Your task to perform on an android device: turn off location history Image 0: 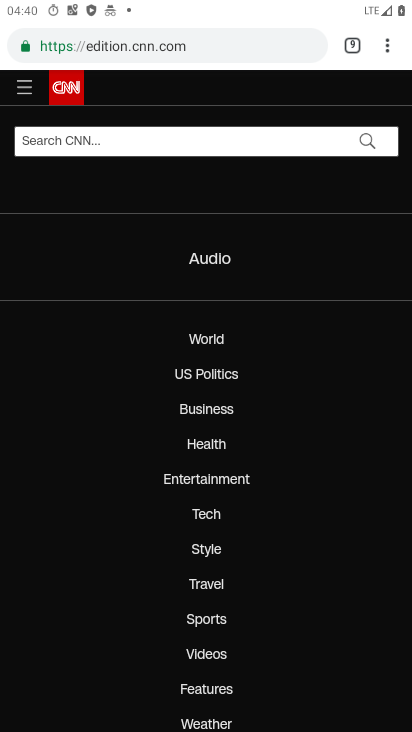
Step 0: press home button
Your task to perform on an android device: turn off location history Image 1: 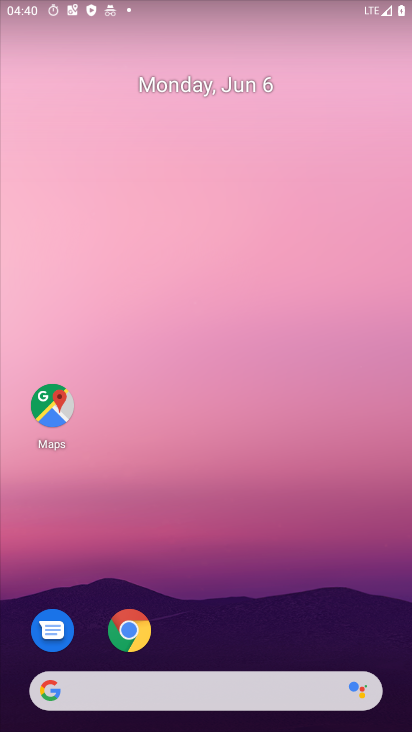
Step 1: drag from (259, 637) to (228, 48)
Your task to perform on an android device: turn off location history Image 2: 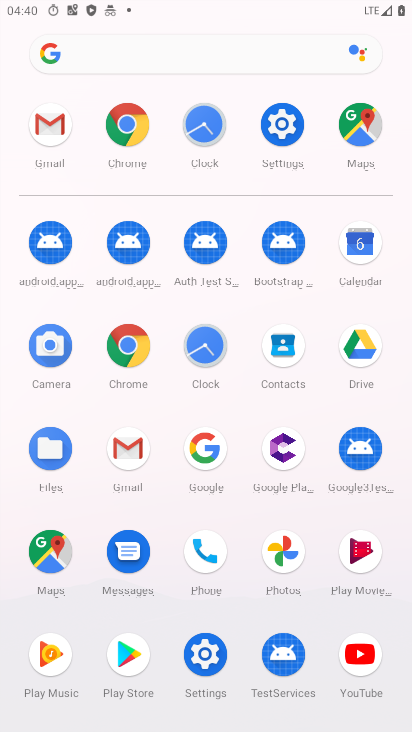
Step 2: click (54, 544)
Your task to perform on an android device: turn off location history Image 3: 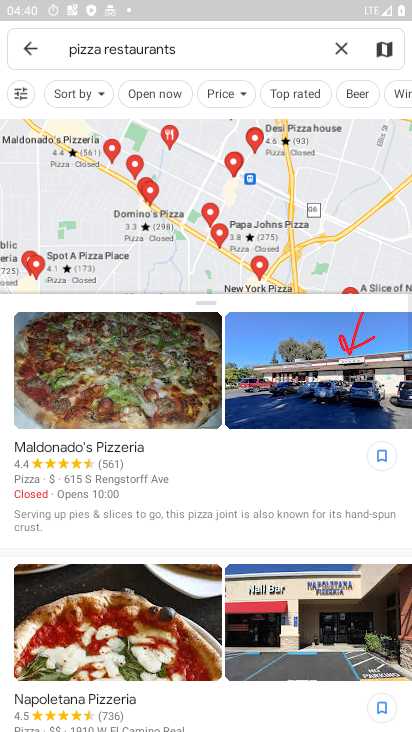
Step 3: click (24, 48)
Your task to perform on an android device: turn off location history Image 4: 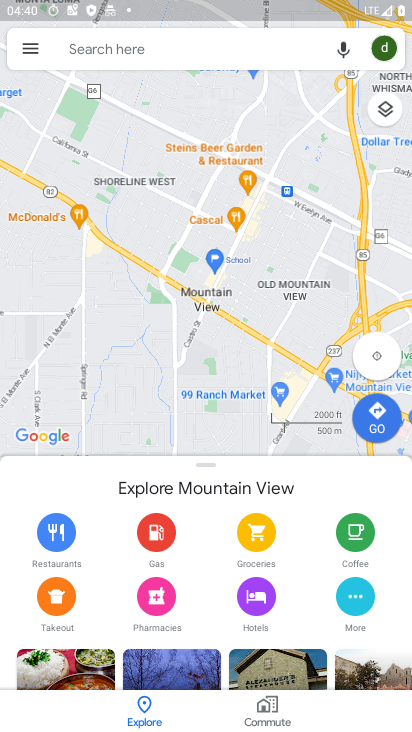
Step 4: click (24, 48)
Your task to perform on an android device: turn off location history Image 5: 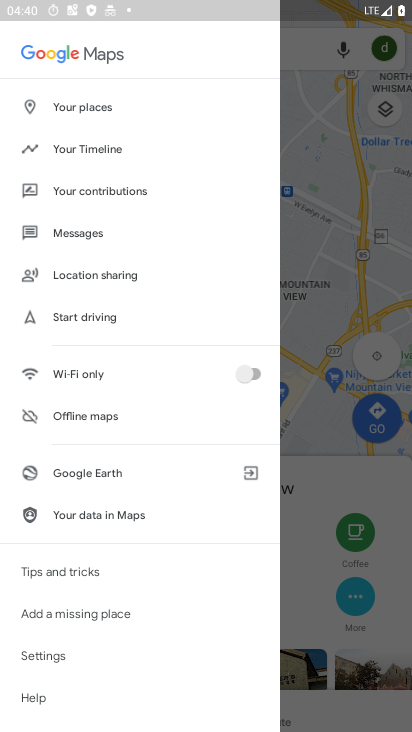
Step 5: click (92, 155)
Your task to perform on an android device: turn off location history Image 6: 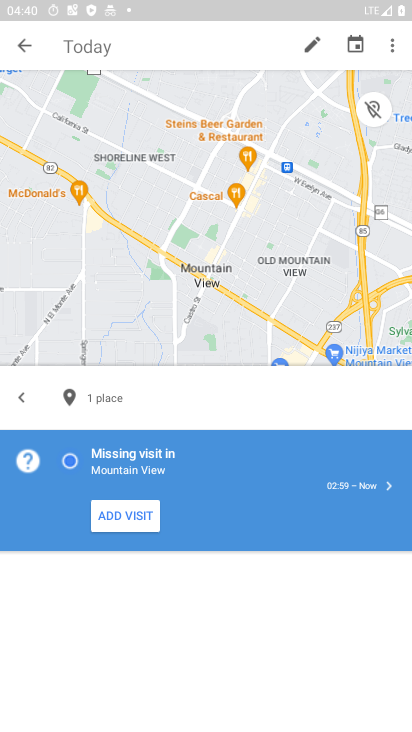
Step 6: click (388, 43)
Your task to perform on an android device: turn off location history Image 7: 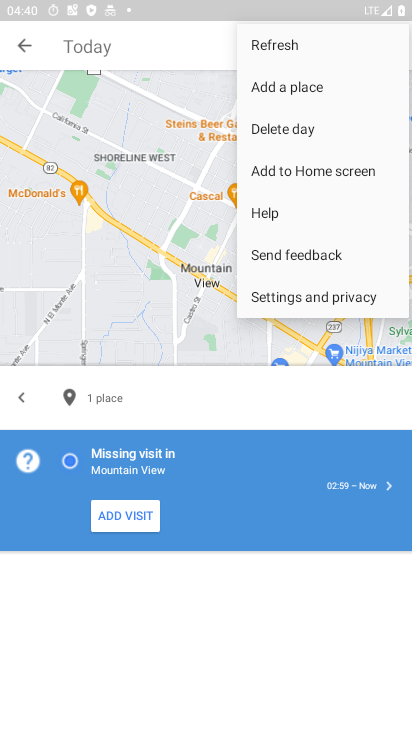
Step 7: click (320, 295)
Your task to perform on an android device: turn off location history Image 8: 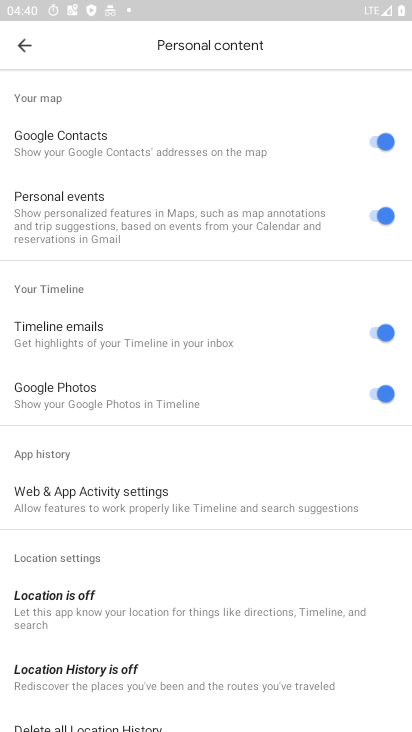
Step 8: click (98, 673)
Your task to perform on an android device: turn off location history Image 9: 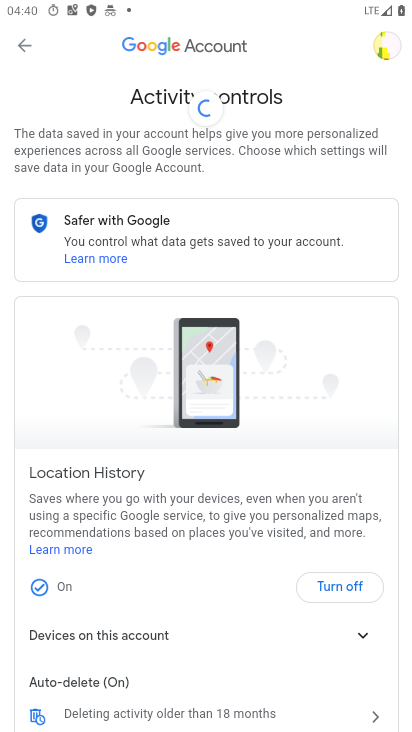
Step 9: drag from (196, 588) to (204, 287)
Your task to perform on an android device: turn off location history Image 10: 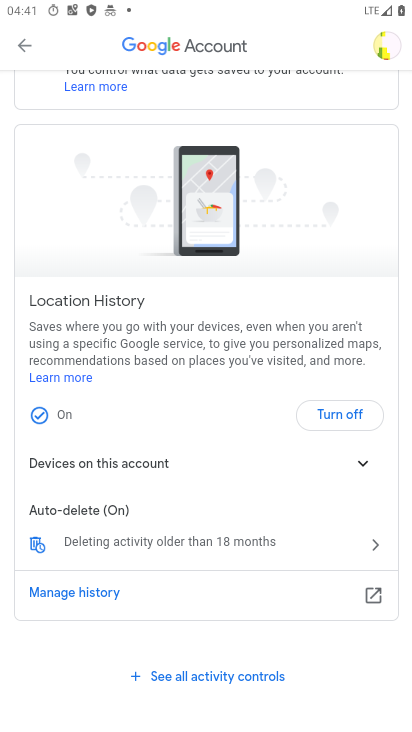
Step 10: click (334, 413)
Your task to perform on an android device: turn off location history Image 11: 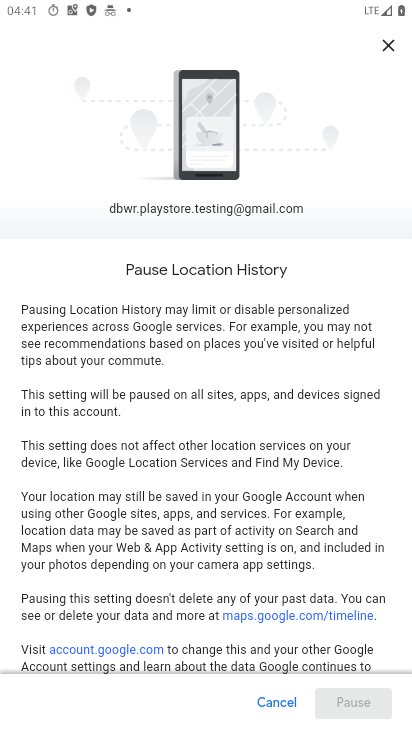
Step 11: drag from (228, 548) to (260, 168)
Your task to perform on an android device: turn off location history Image 12: 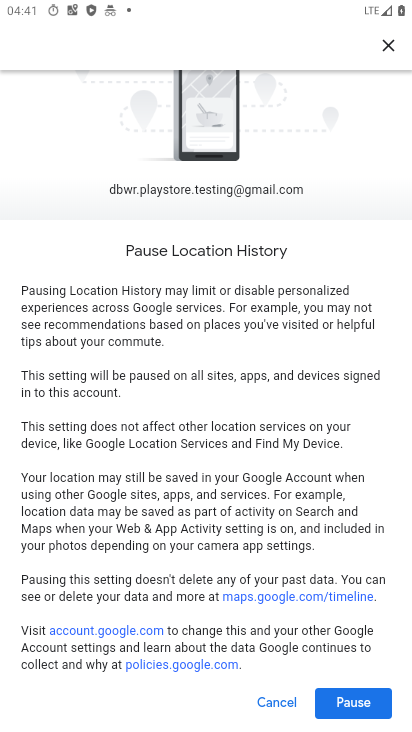
Step 12: drag from (251, 573) to (263, 209)
Your task to perform on an android device: turn off location history Image 13: 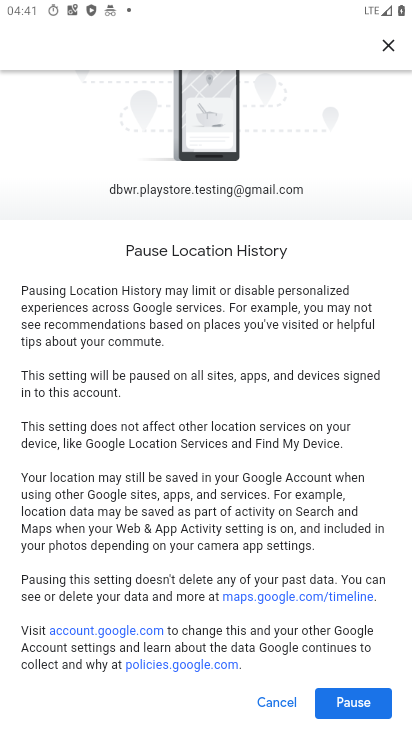
Step 13: click (366, 703)
Your task to perform on an android device: turn off location history Image 14: 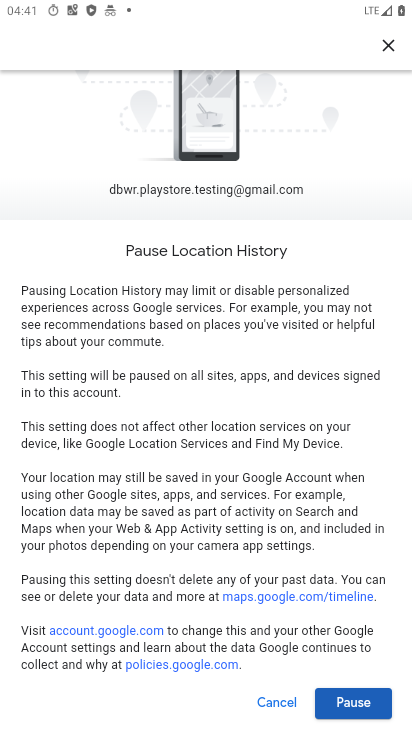
Step 14: click (352, 700)
Your task to perform on an android device: turn off location history Image 15: 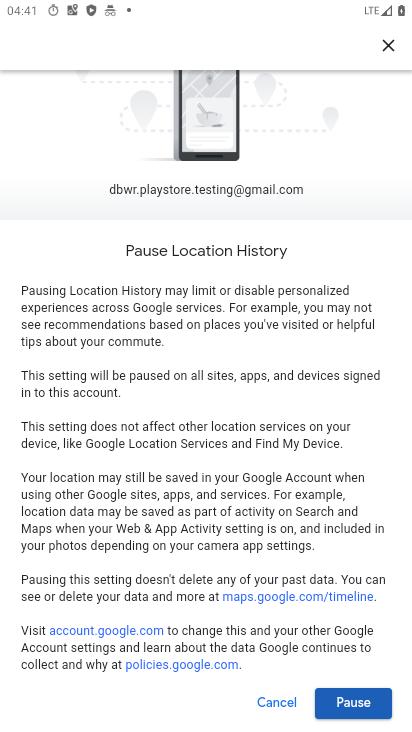
Step 15: click (352, 700)
Your task to perform on an android device: turn off location history Image 16: 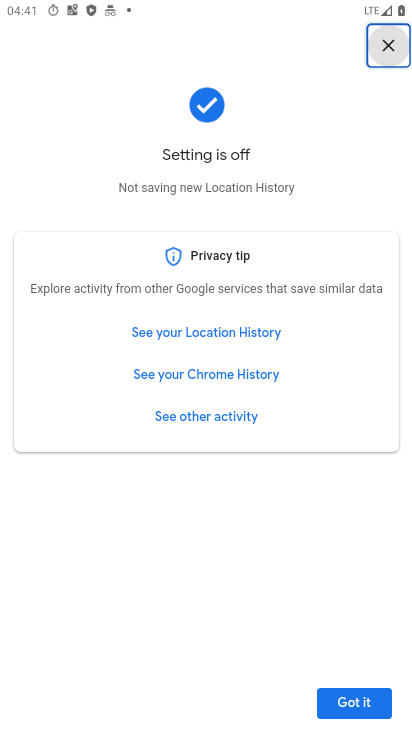
Step 16: click (367, 700)
Your task to perform on an android device: turn off location history Image 17: 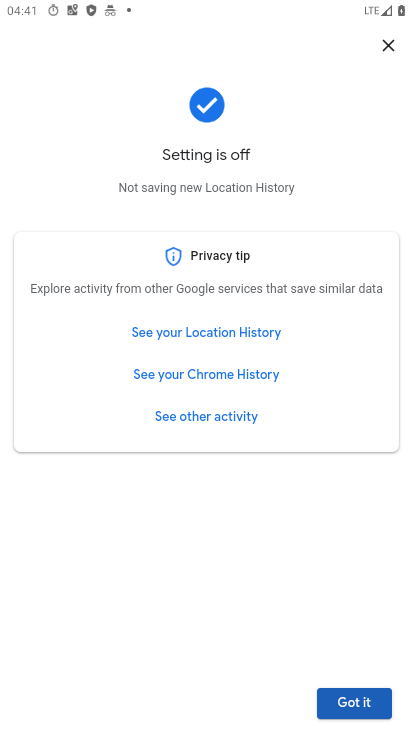
Step 17: click (366, 707)
Your task to perform on an android device: turn off location history Image 18: 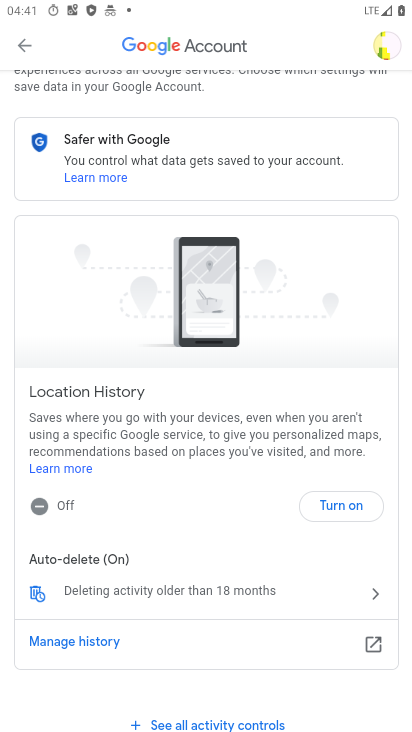
Step 18: task complete